Your task to perform on an android device: Turn off the flashlight Image 0: 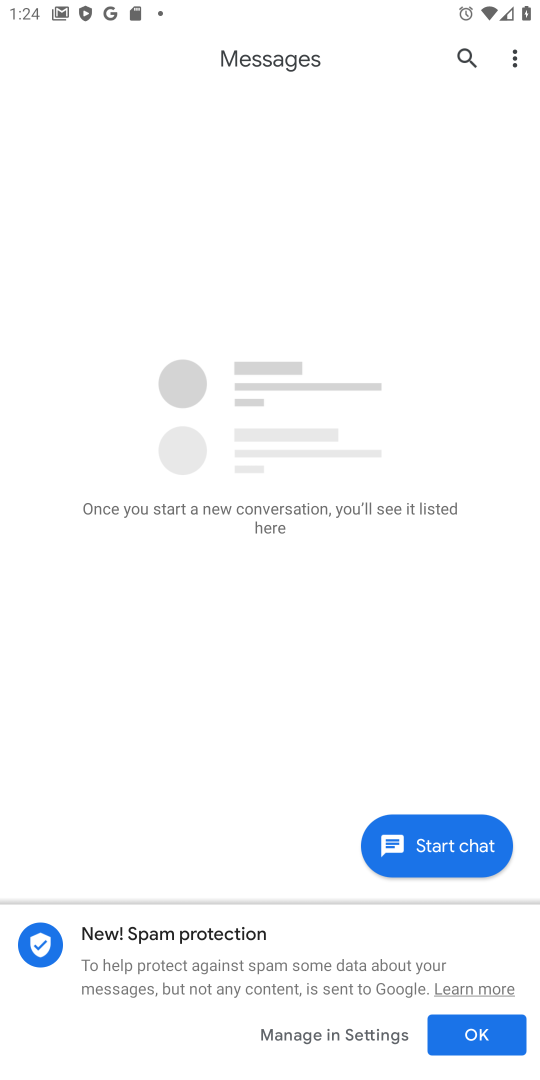
Step 0: press home button
Your task to perform on an android device: Turn off the flashlight Image 1: 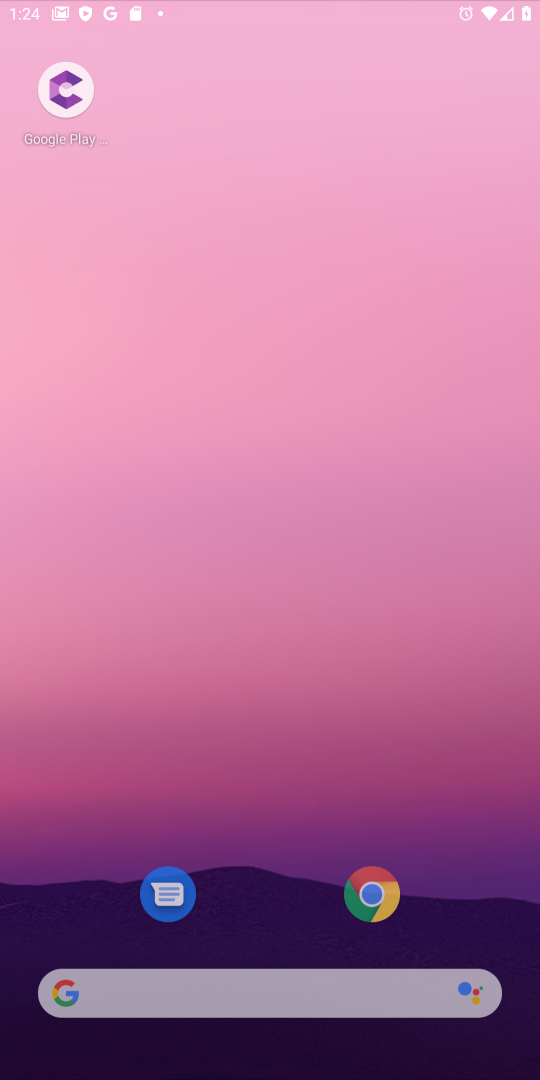
Step 1: task complete